Your task to perform on an android device: check data usage Image 0: 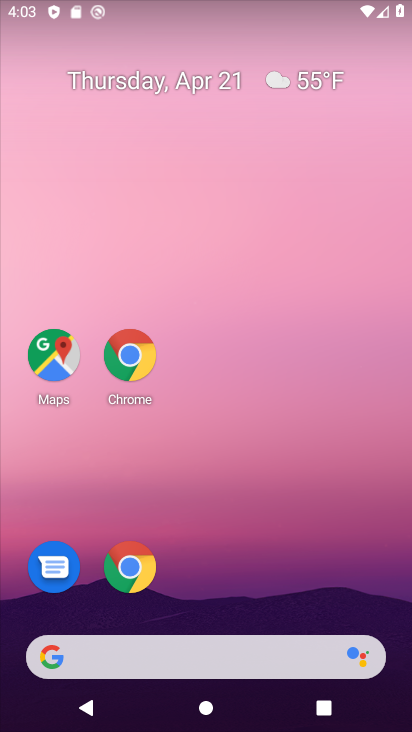
Step 0: drag from (271, 697) to (198, 255)
Your task to perform on an android device: check data usage Image 1: 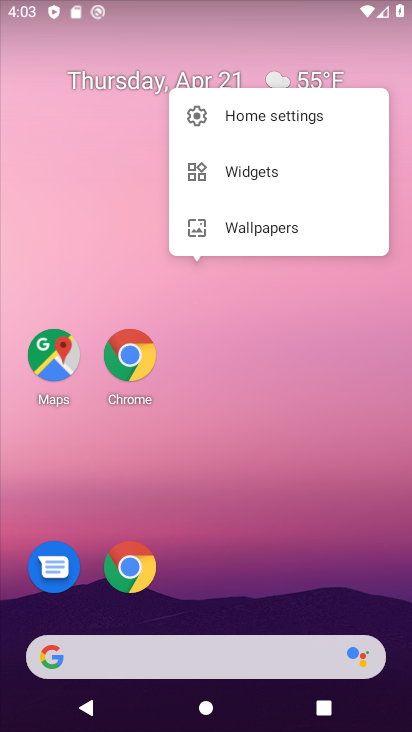
Step 1: click (147, 12)
Your task to perform on an android device: check data usage Image 2: 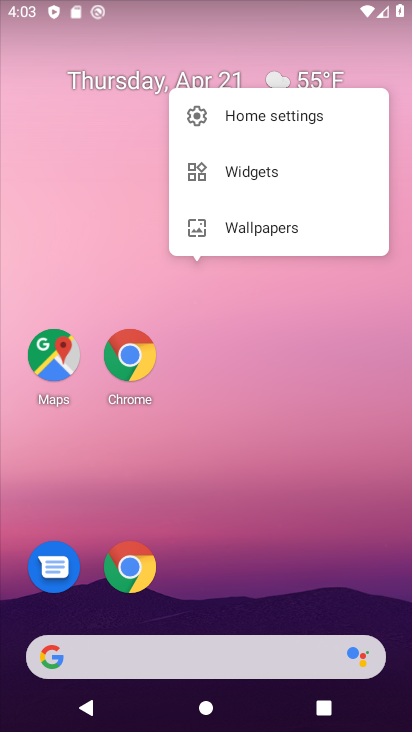
Step 2: drag from (216, 576) to (129, 20)
Your task to perform on an android device: check data usage Image 3: 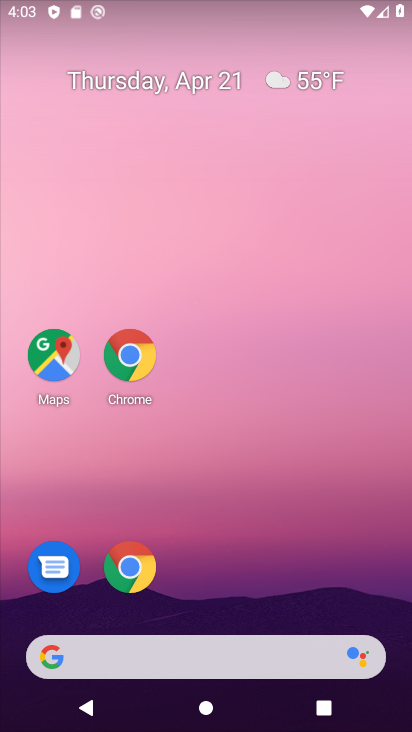
Step 3: drag from (233, 456) to (180, 35)
Your task to perform on an android device: check data usage Image 4: 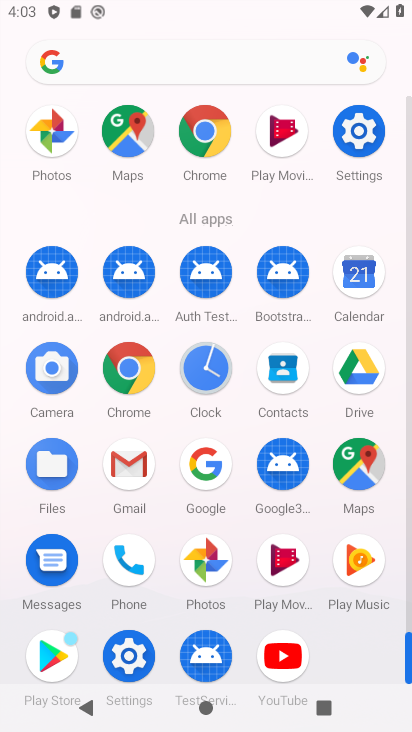
Step 4: click (351, 139)
Your task to perform on an android device: check data usage Image 5: 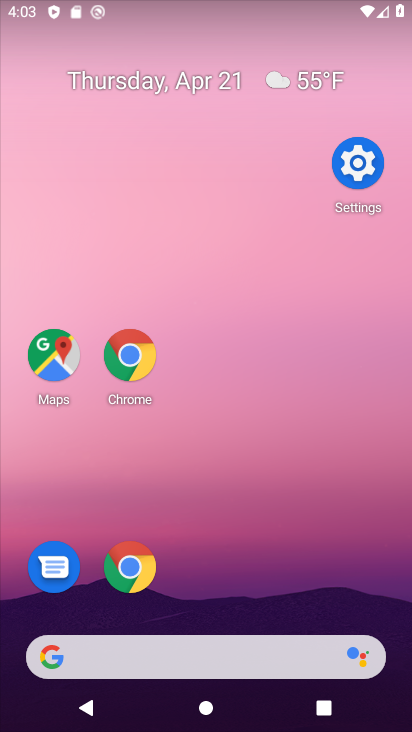
Step 5: click (361, 166)
Your task to perform on an android device: check data usage Image 6: 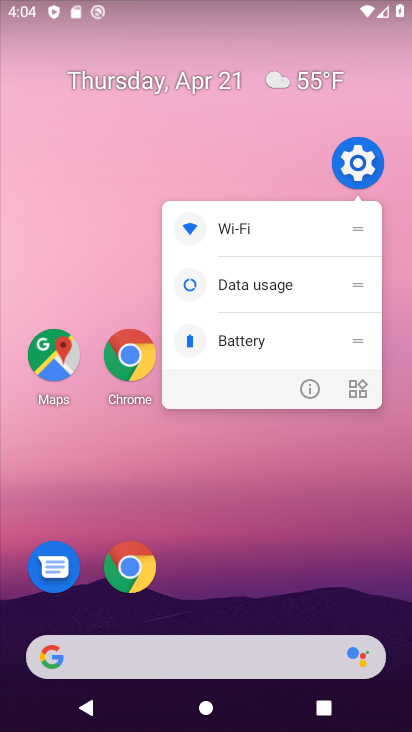
Step 6: click (274, 292)
Your task to perform on an android device: check data usage Image 7: 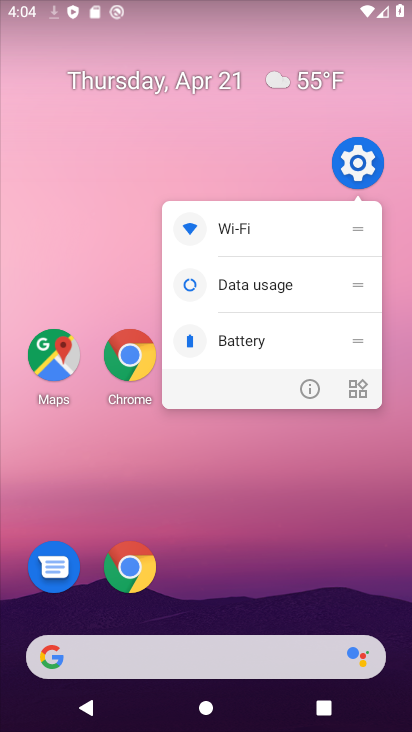
Step 7: click (274, 292)
Your task to perform on an android device: check data usage Image 8: 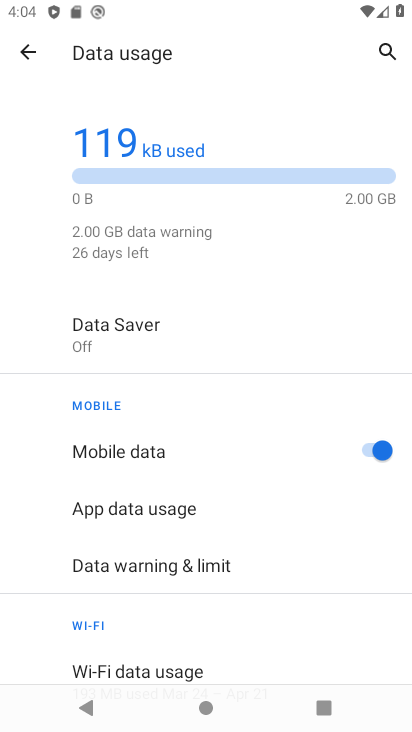
Step 8: task complete